Your task to perform on an android device: toggle pop-ups in chrome Image 0: 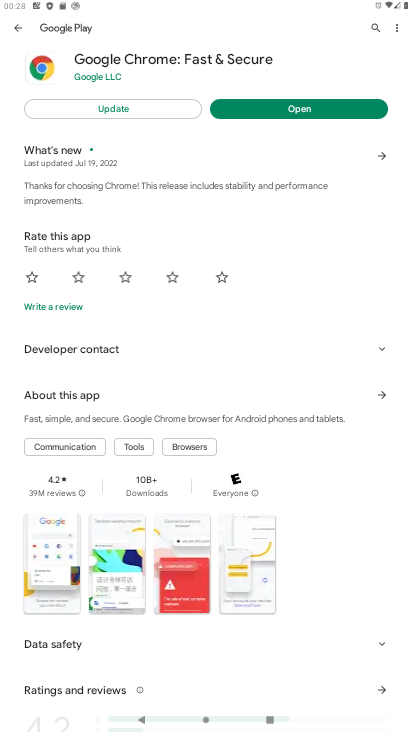
Step 0: click (296, 103)
Your task to perform on an android device: toggle pop-ups in chrome Image 1: 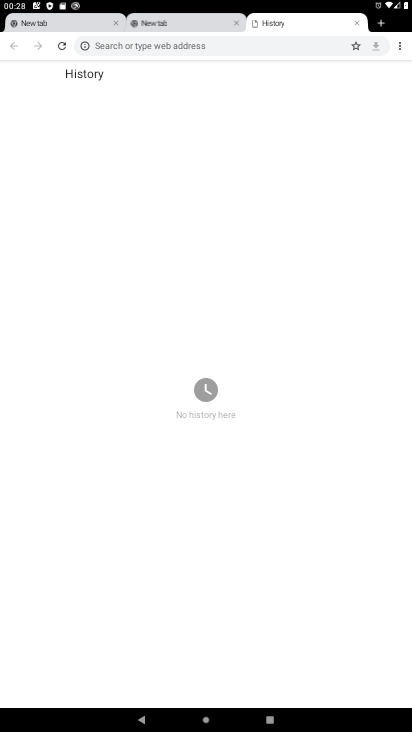
Step 1: click (401, 47)
Your task to perform on an android device: toggle pop-ups in chrome Image 2: 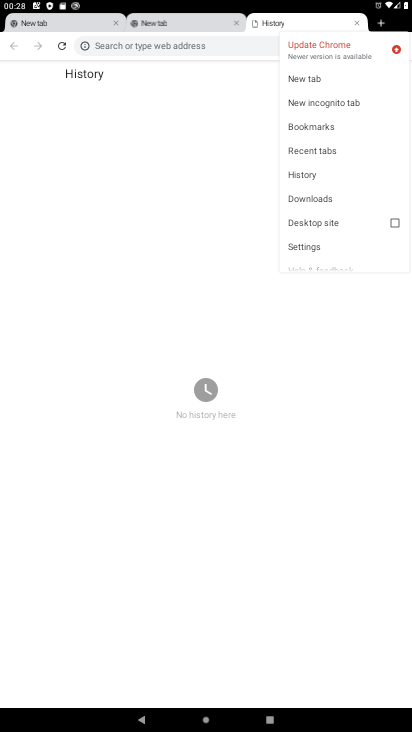
Step 2: click (307, 244)
Your task to perform on an android device: toggle pop-ups in chrome Image 3: 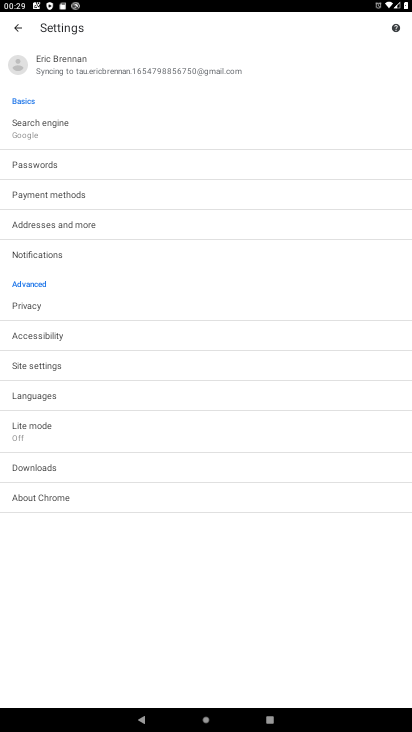
Step 3: click (50, 367)
Your task to perform on an android device: toggle pop-ups in chrome Image 4: 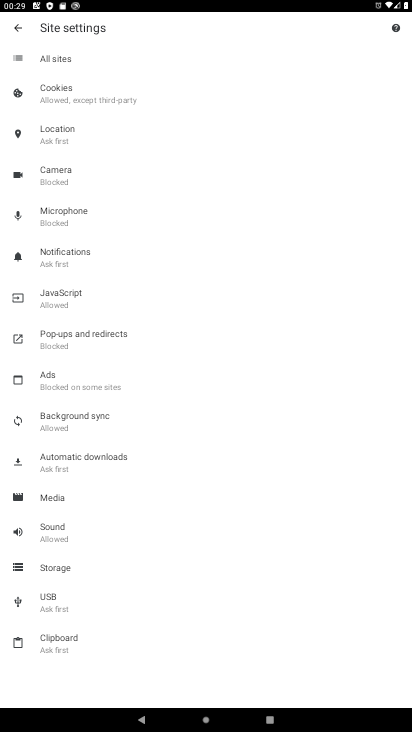
Step 4: click (67, 345)
Your task to perform on an android device: toggle pop-ups in chrome Image 5: 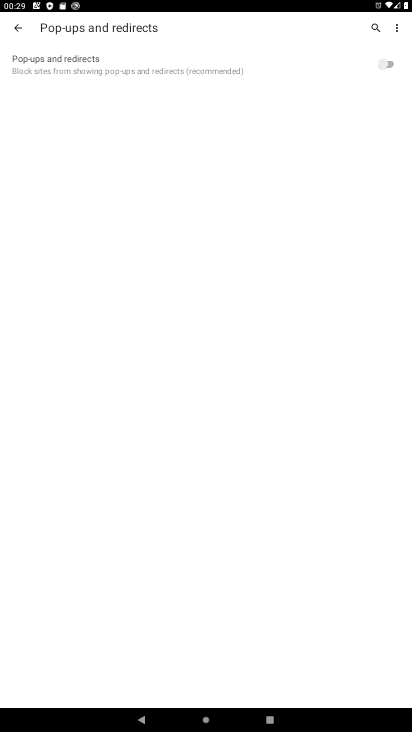
Step 5: click (385, 63)
Your task to perform on an android device: toggle pop-ups in chrome Image 6: 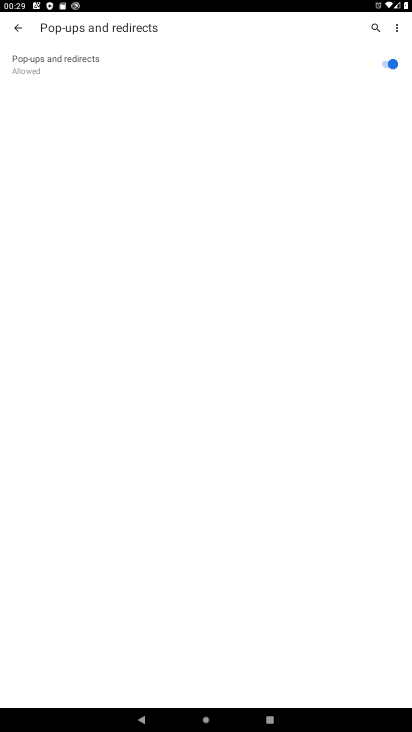
Step 6: task complete